Your task to perform on an android device: open a new tab in the chrome app Image 0: 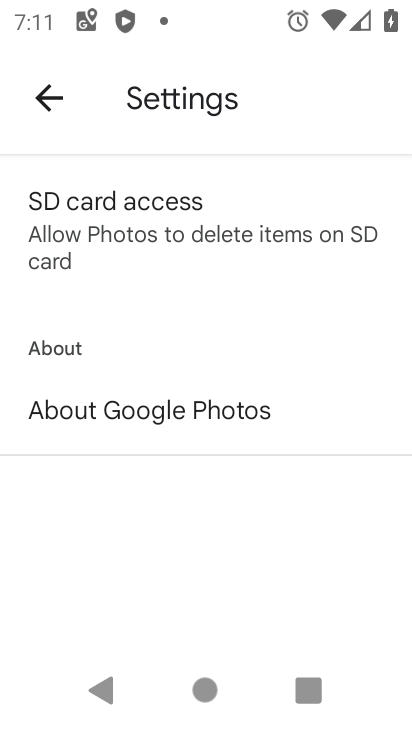
Step 0: press home button
Your task to perform on an android device: open a new tab in the chrome app Image 1: 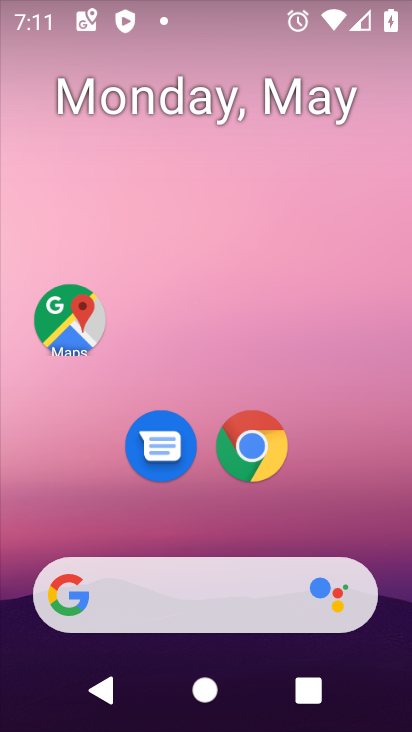
Step 1: click (270, 446)
Your task to perform on an android device: open a new tab in the chrome app Image 2: 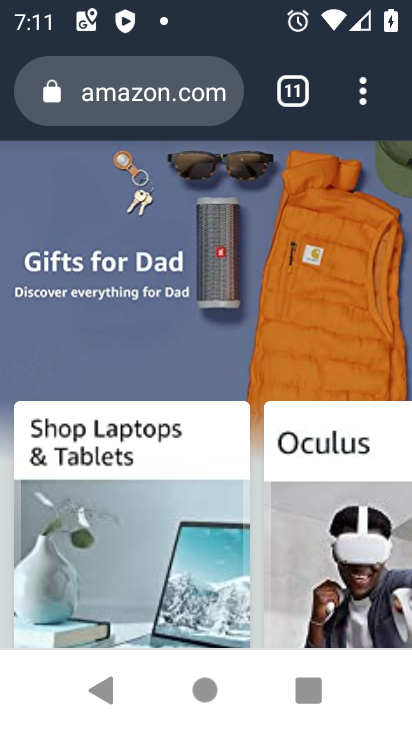
Step 2: click (361, 87)
Your task to perform on an android device: open a new tab in the chrome app Image 3: 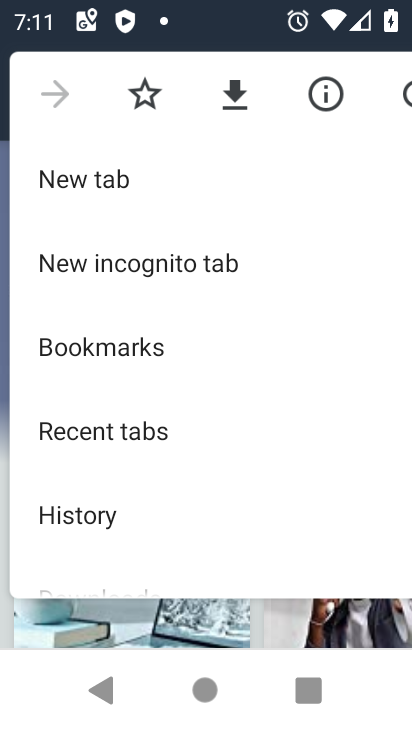
Step 3: click (118, 172)
Your task to perform on an android device: open a new tab in the chrome app Image 4: 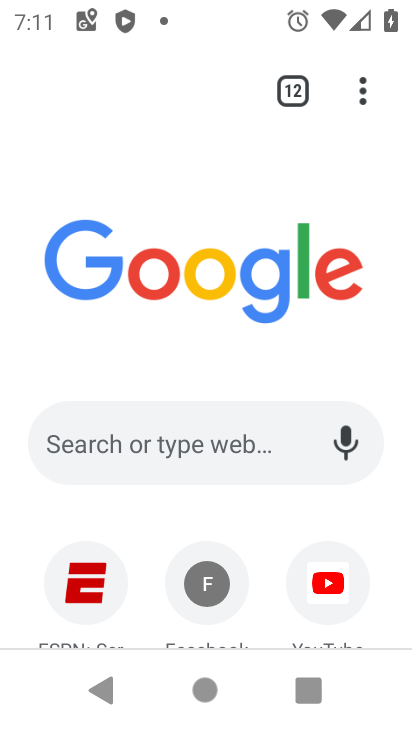
Step 4: task complete